Your task to perform on an android device: toggle show notifications on the lock screen Image 0: 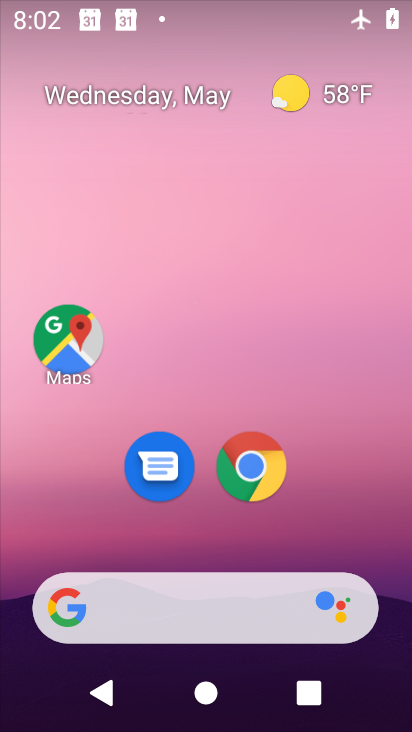
Step 0: press home button
Your task to perform on an android device: toggle show notifications on the lock screen Image 1: 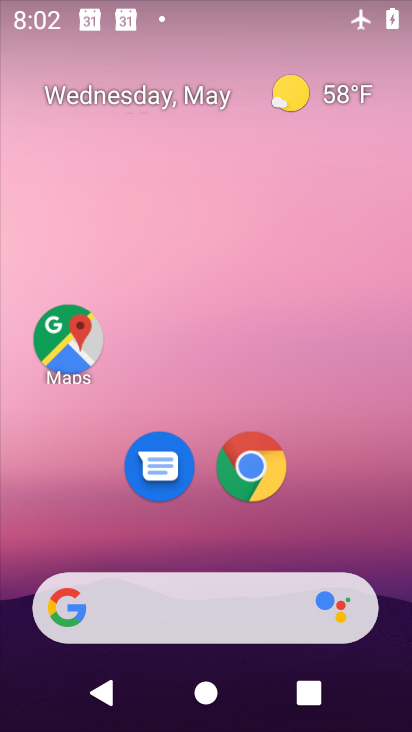
Step 1: drag from (193, 538) to (232, 9)
Your task to perform on an android device: toggle show notifications on the lock screen Image 2: 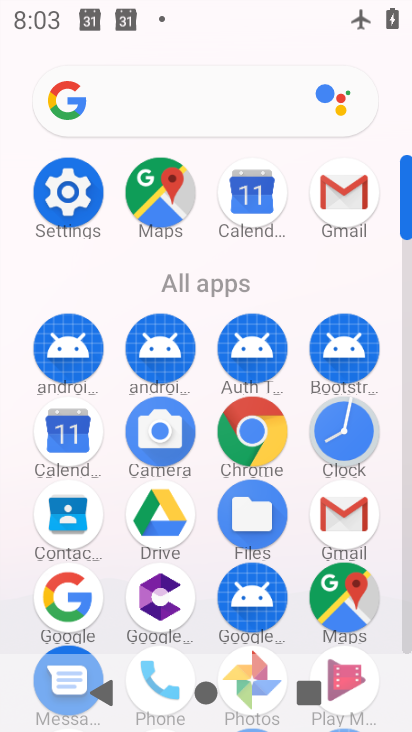
Step 2: click (62, 186)
Your task to perform on an android device: toggle show notifications on the lock screen Image 3: 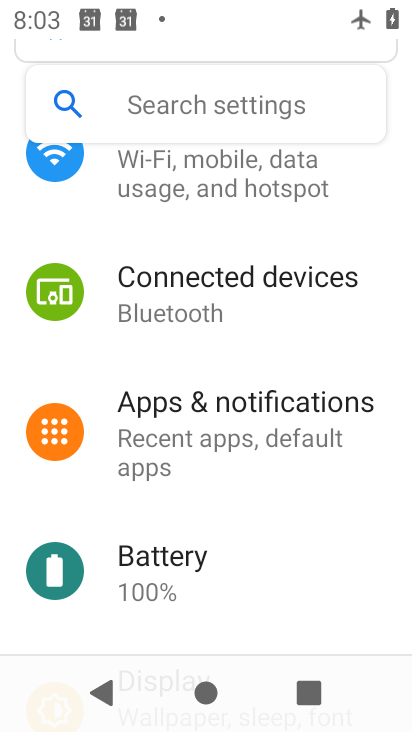
Step 3: click (230, 426)
Your task to perform on an android device: toggle show notifications on the lock screen Image 4: 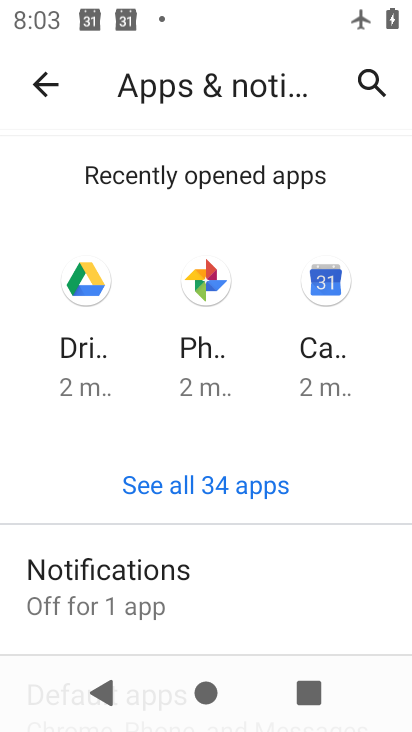
Step 4: click (201, 580)
Your task to perform on an android device: toggle show notifications on the lock screen Image 5: 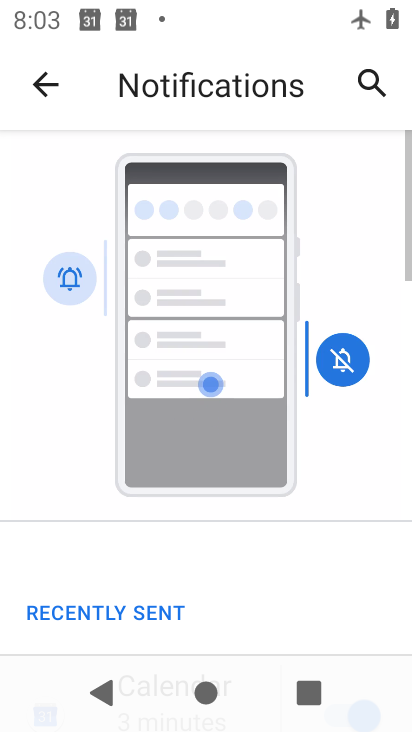
Step 5: drag from (201, 580) to (260, 22)
Your task to perform on an android device: toggle show notifications on the lock screen Image 6: 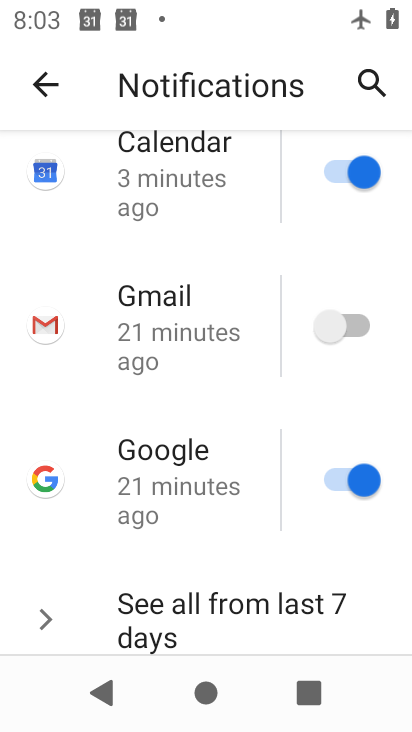
Step 6: drag from (205, 634) to (261, 42)
Your task to perform on an android device: toggle show notifications on the lock screen Image 7: 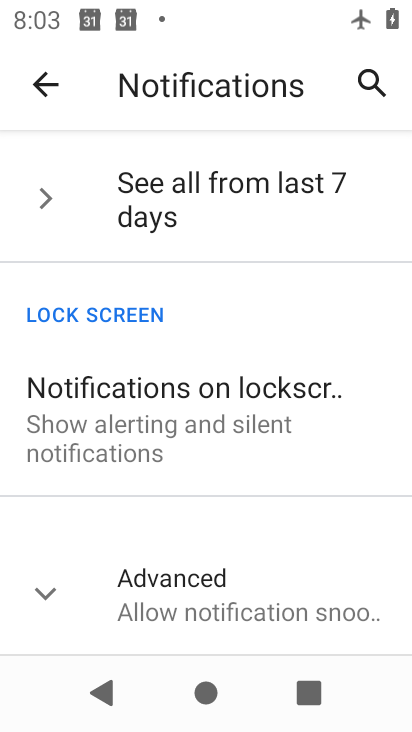
Step 7: click (157, 417)
Your task to perform on an android device: toggle show notifications on the lock screen Image 8: 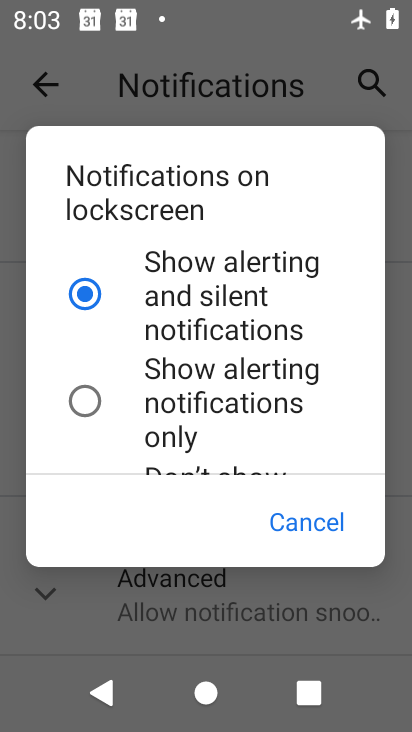
Step 8: click (85, 404)
Your task to perform on an android device: toggle show notifications on the lock screen Image 9: 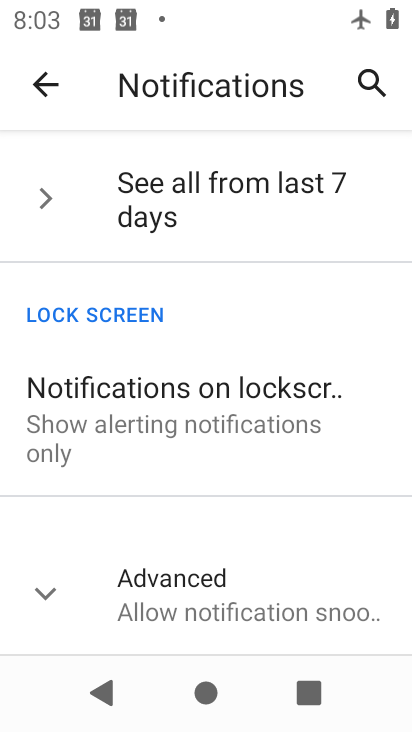
Step 9: task complete